Your task to perform on an android device: Search for "razer huntsman" on newegg, select the first entry, and add it to the cart. Image 0: 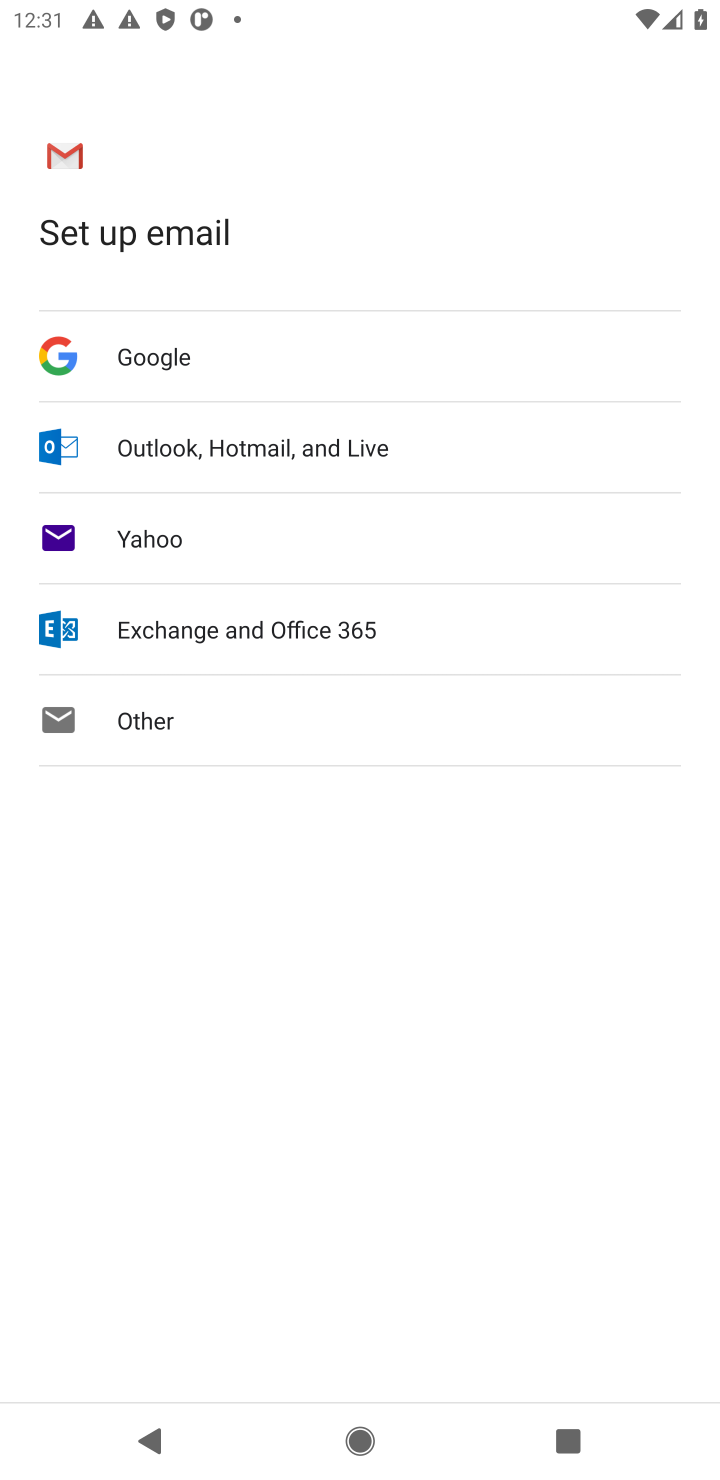
Step 0: press home button
Your task to perform on an android device: Search for "razer huntsman" on newegg, select the first entry, and add it to the cart. Image 1: 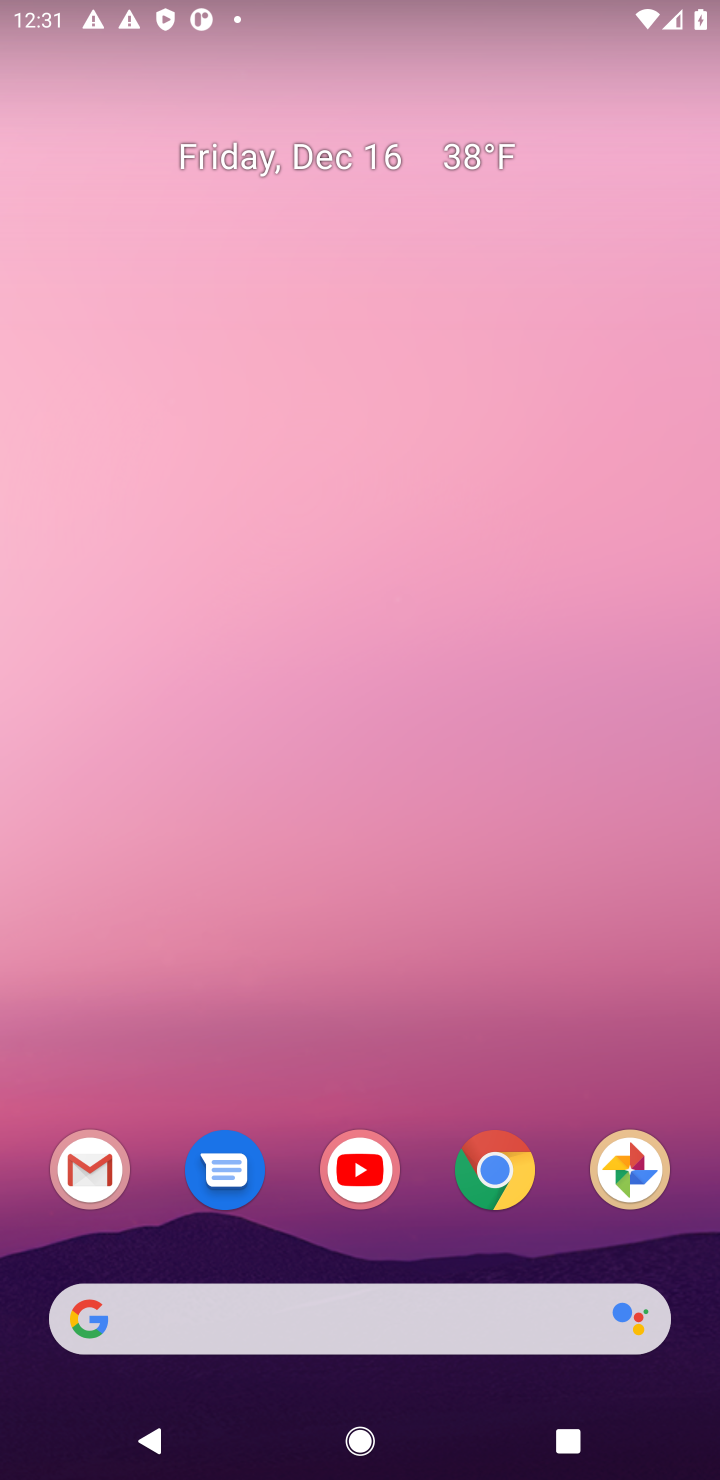
Step 1: click (499, 1185)
Your task to perform on an android device: Search for "razer huntsman" on newegg, select the first entry, and add it to the cart. Image 2: 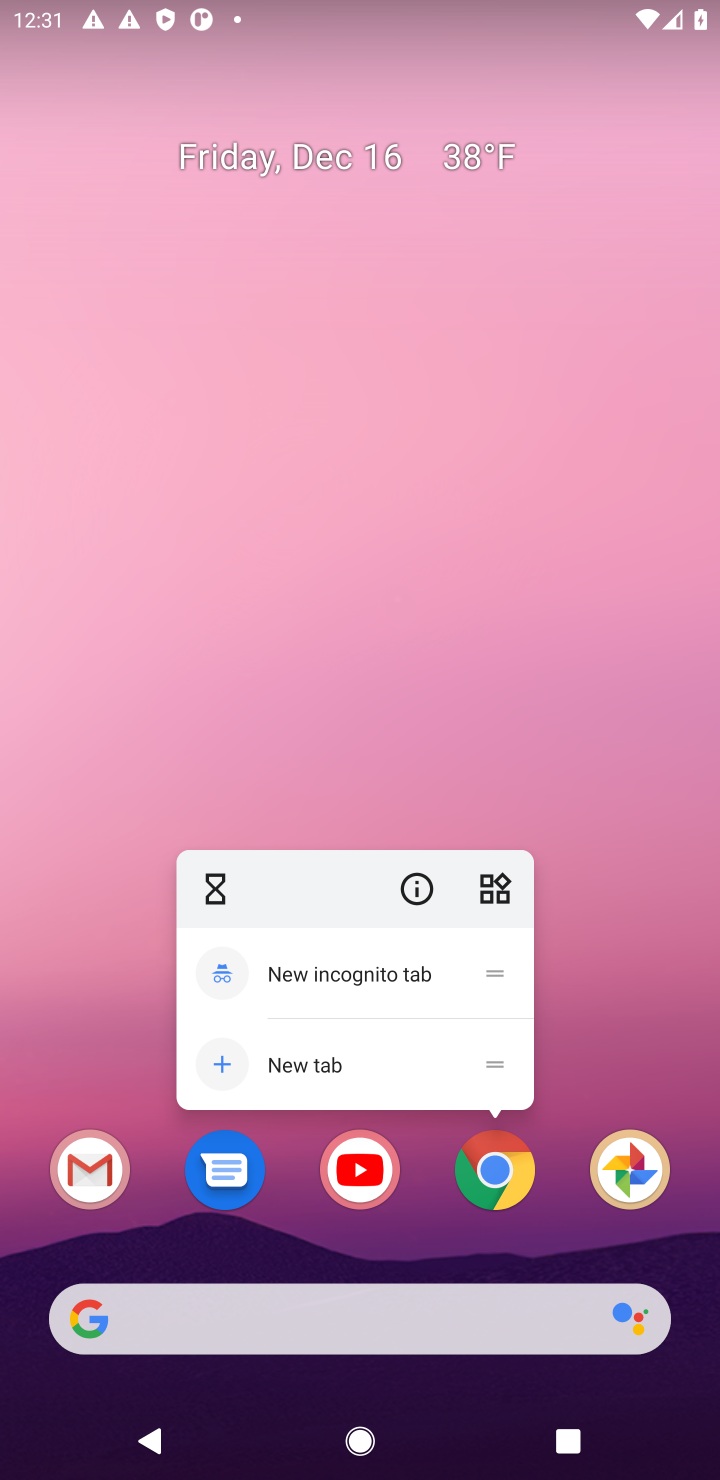
Step 2: click (499, 1185)
Your task to perform on an android device: Search for "razer huntsman" on newegg, select the first entry, and add it to the cart. Image 3: 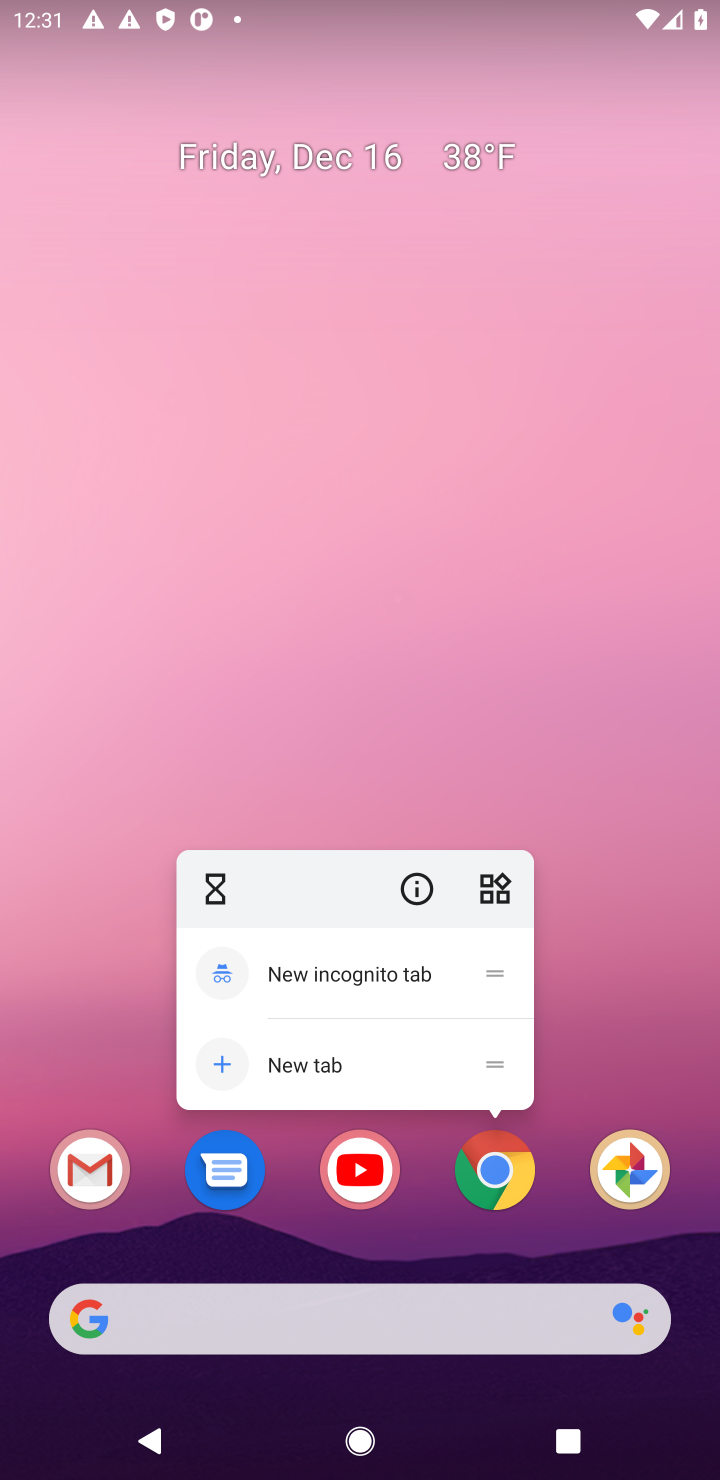
Step 3: click (497, 1180)
Your task to perform on an android device: Search for "razer huntsman" on newegg, select the first entry, and add it to the cart. Image 4: 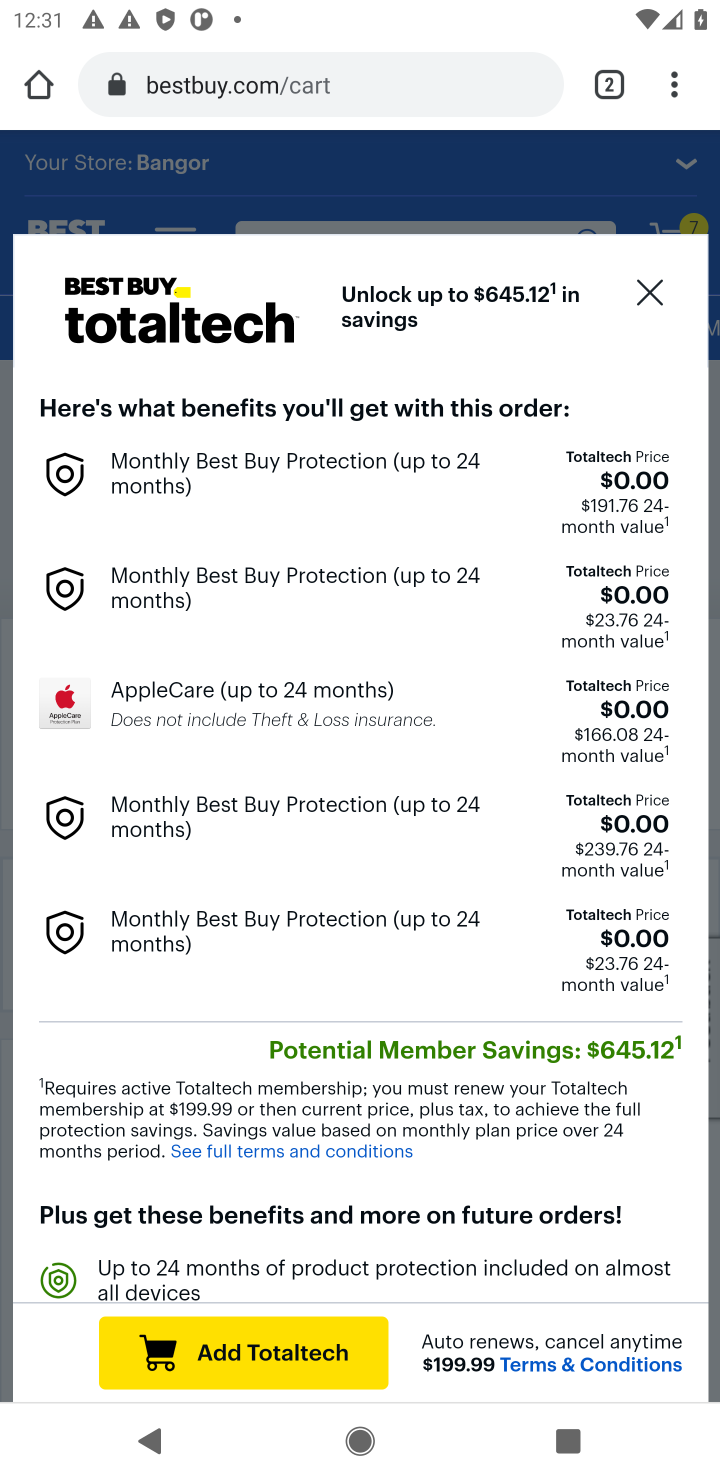
Step 4: click (270, 86)
Your task to perform on an android device: Search for "razer huntsman" on newegg, select the first entry, and add it to the cart. Image 5: 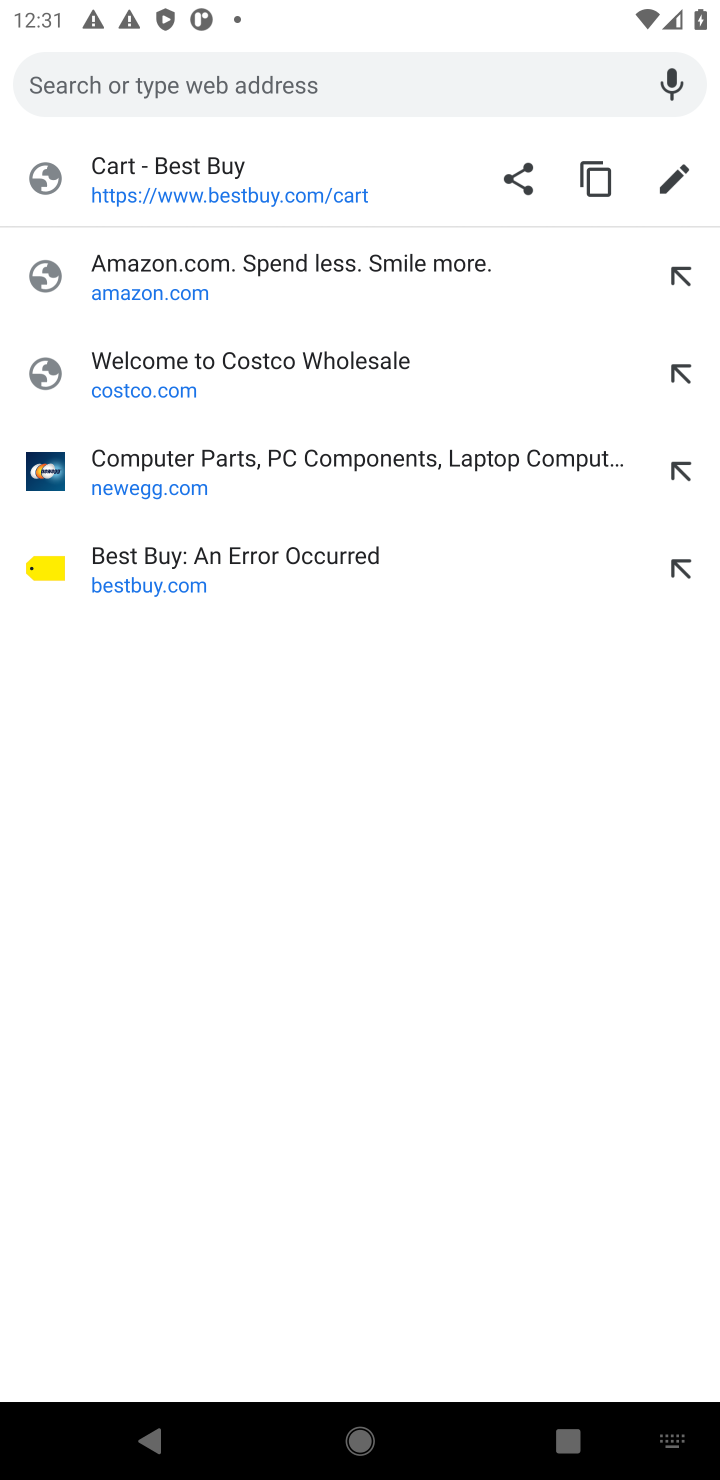
Step 5: click (134, 477)
Your task to perform on an android device: Search for "razer huntsman" on newegg, select the first entry, and add it to the cart. Image 6: 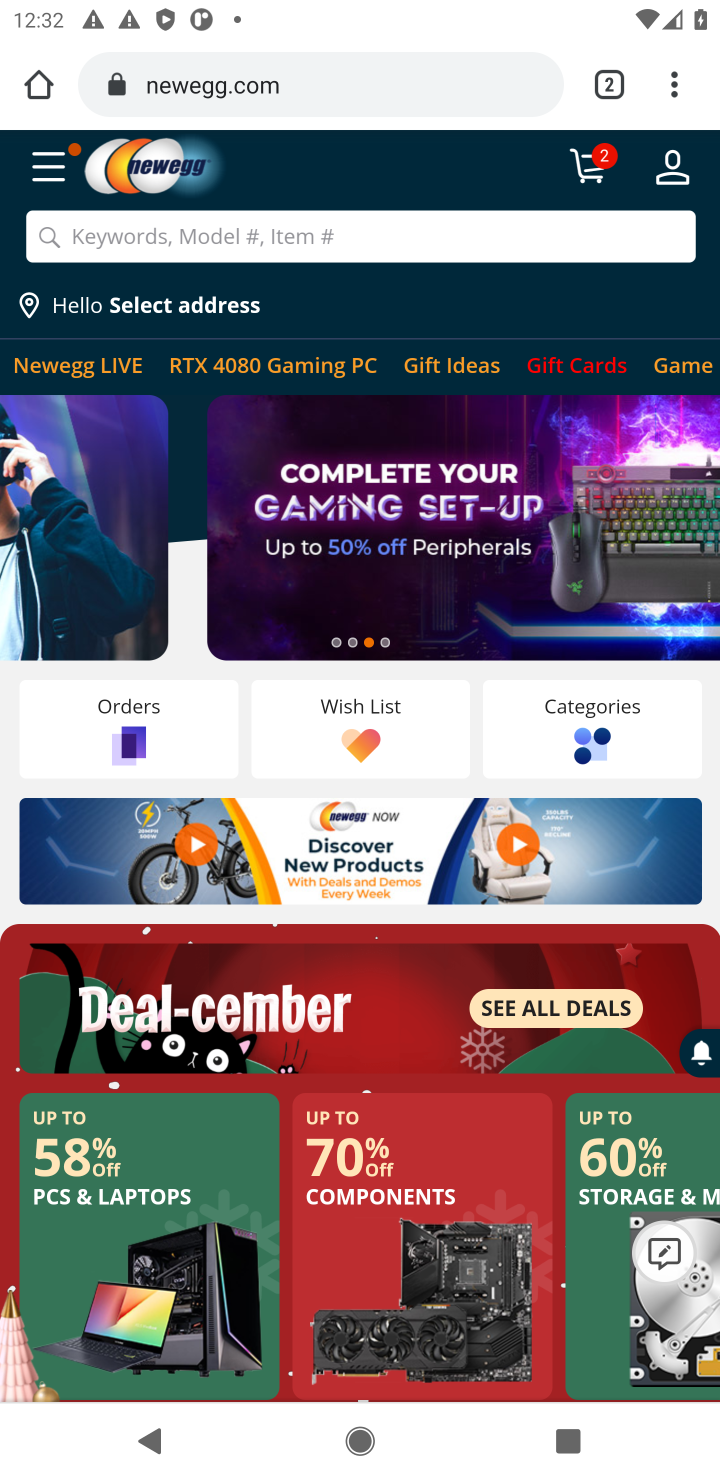
Step 6: click (200, 232)
Your task to perform on an android device: Search for "razer huntsman" on newegg, select the first entry, and add it to the cart. Image 7: 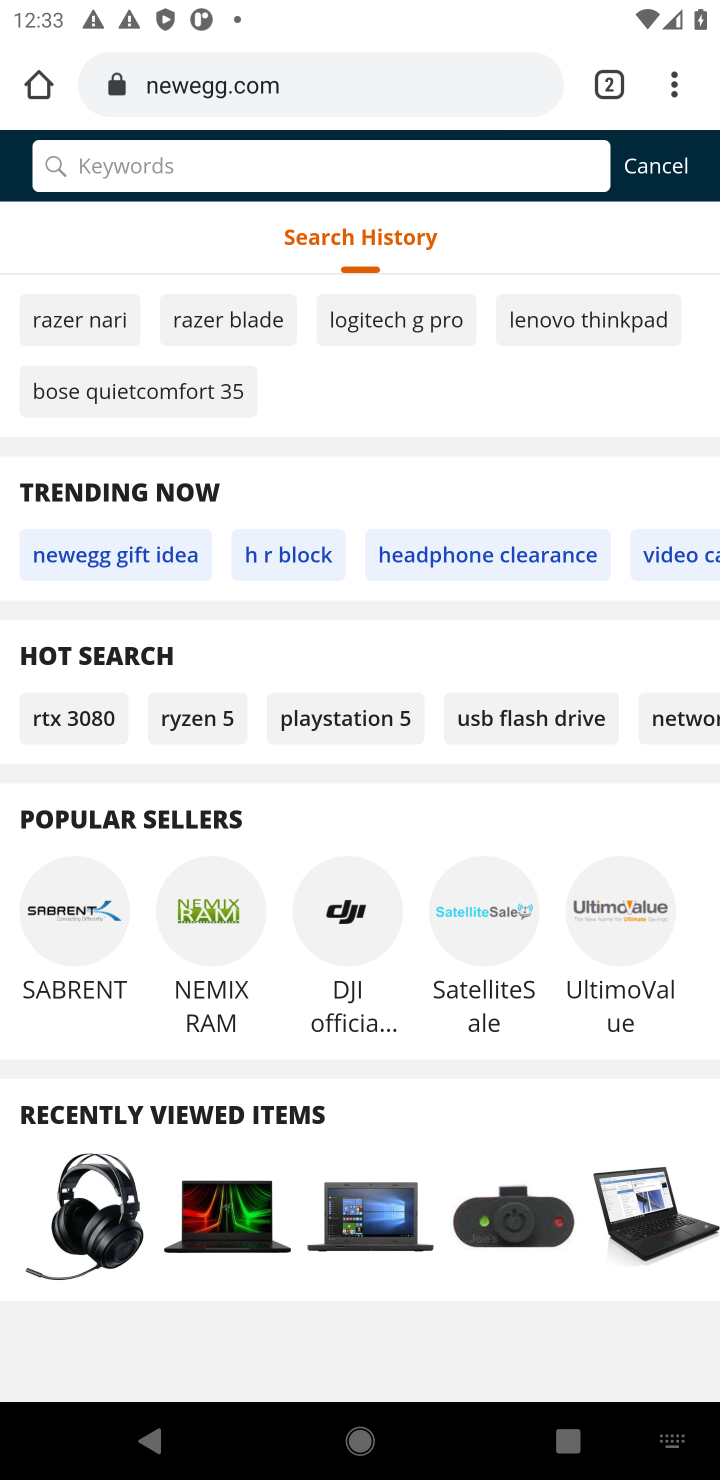
Step 7: click (268, 151)
Your task to perform on an android device: Search for "razer huntsman" on newegg, select the first entry, and add it to the cart. Image 8: 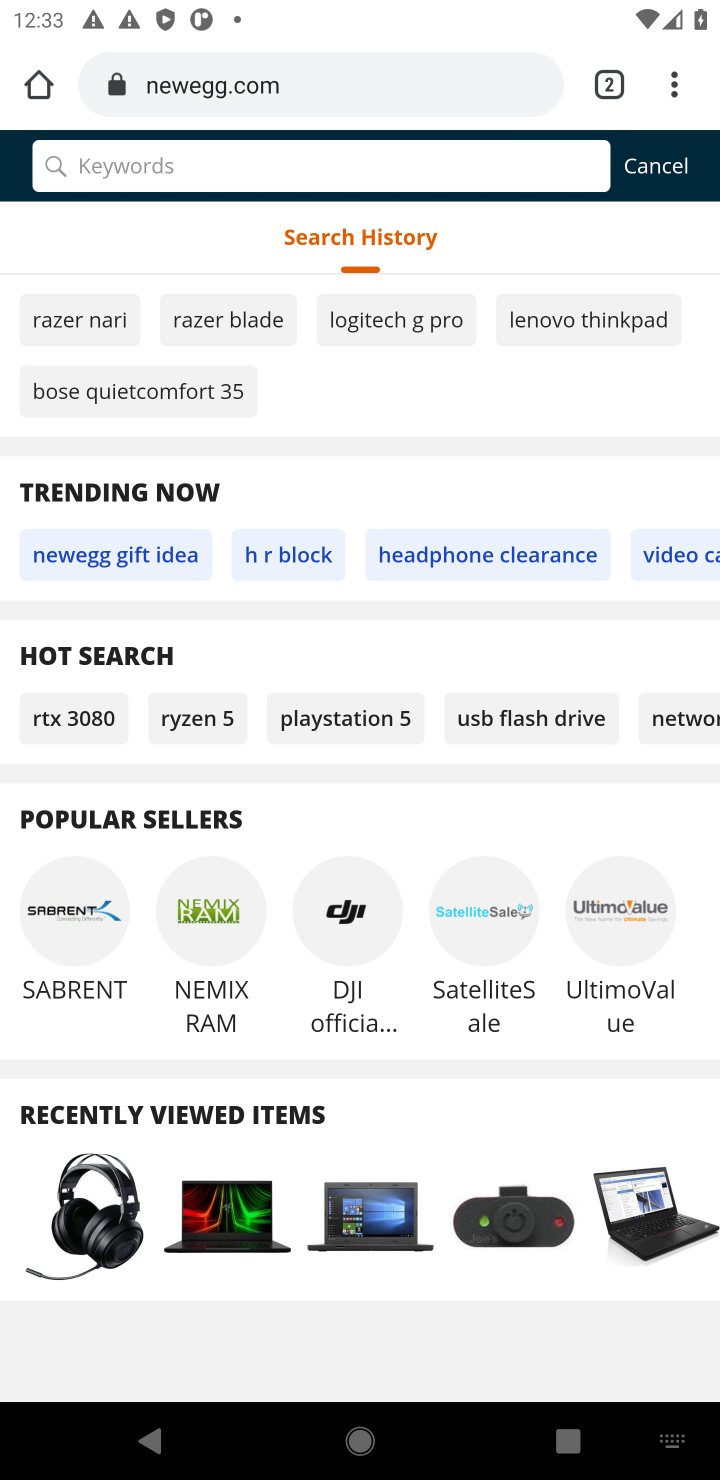
Step 8: type "razer huntsman"
Your task to perform on an android device: Search for "razer huntsman" on newegg, select the first entry, and add it to the cart. Image 9: 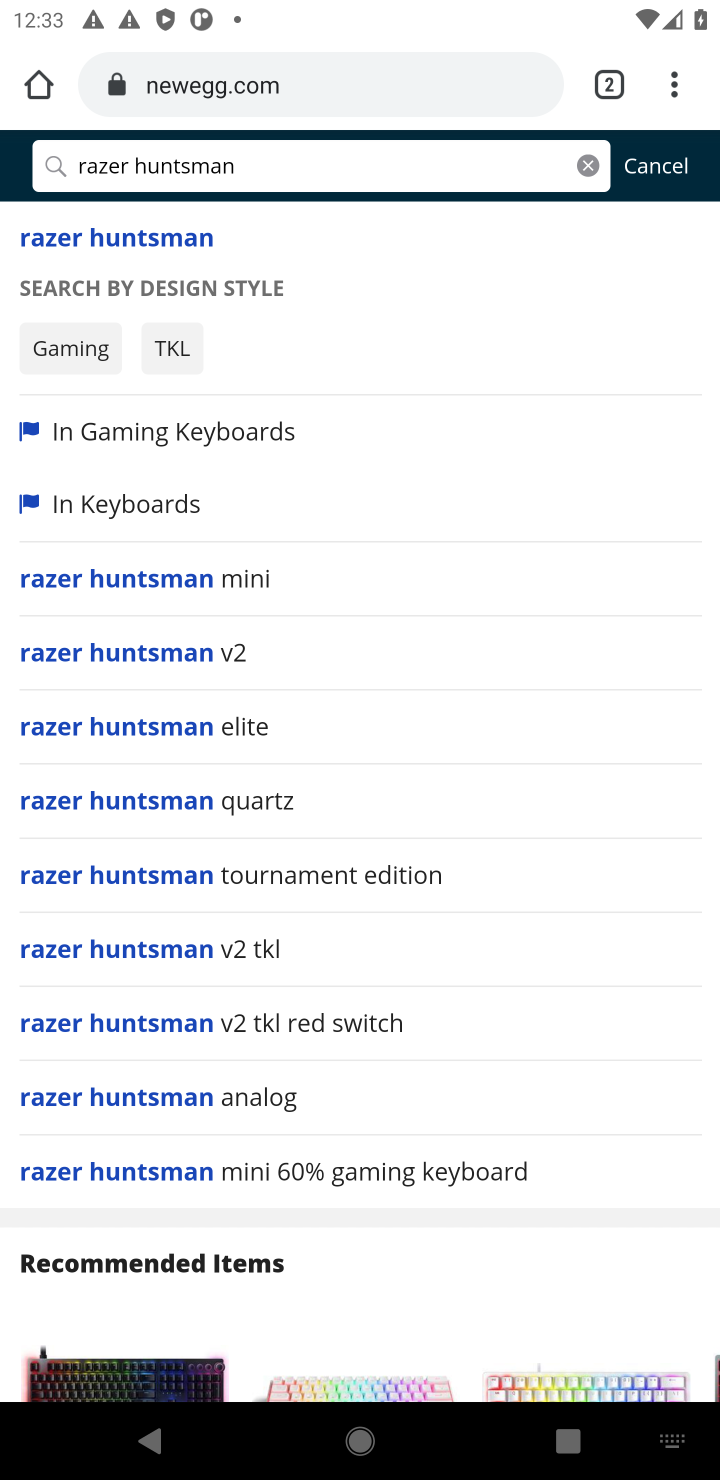
Step 9: click (208, 237)
Your task to perform on an android device: Search for "razer huntsman" on newegg, select the first entry, and add it to the cart. Image 10: 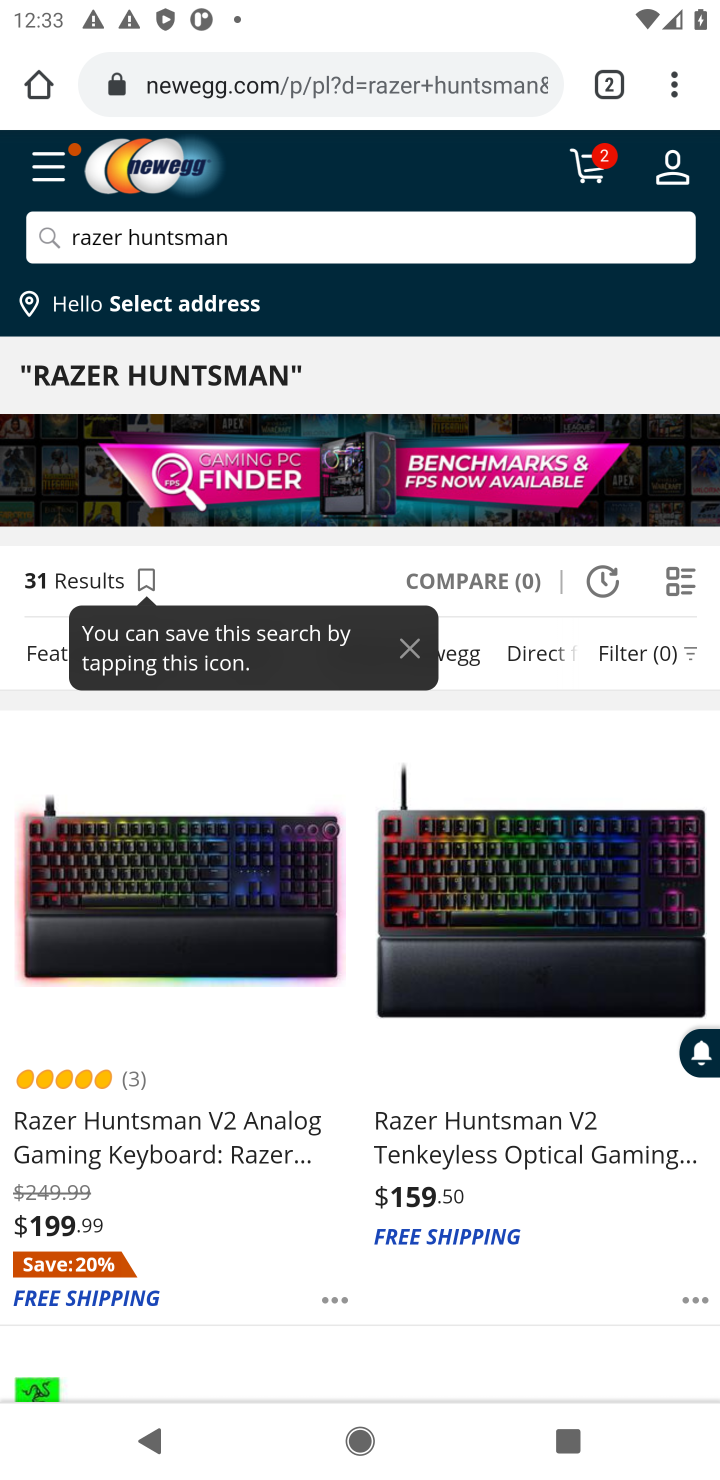
Step 10: click (111, 1149)
Your task to perform on an android device: Search for "razer huntsman" on newegg, select the first entry, and add it to the cart. Image 11: 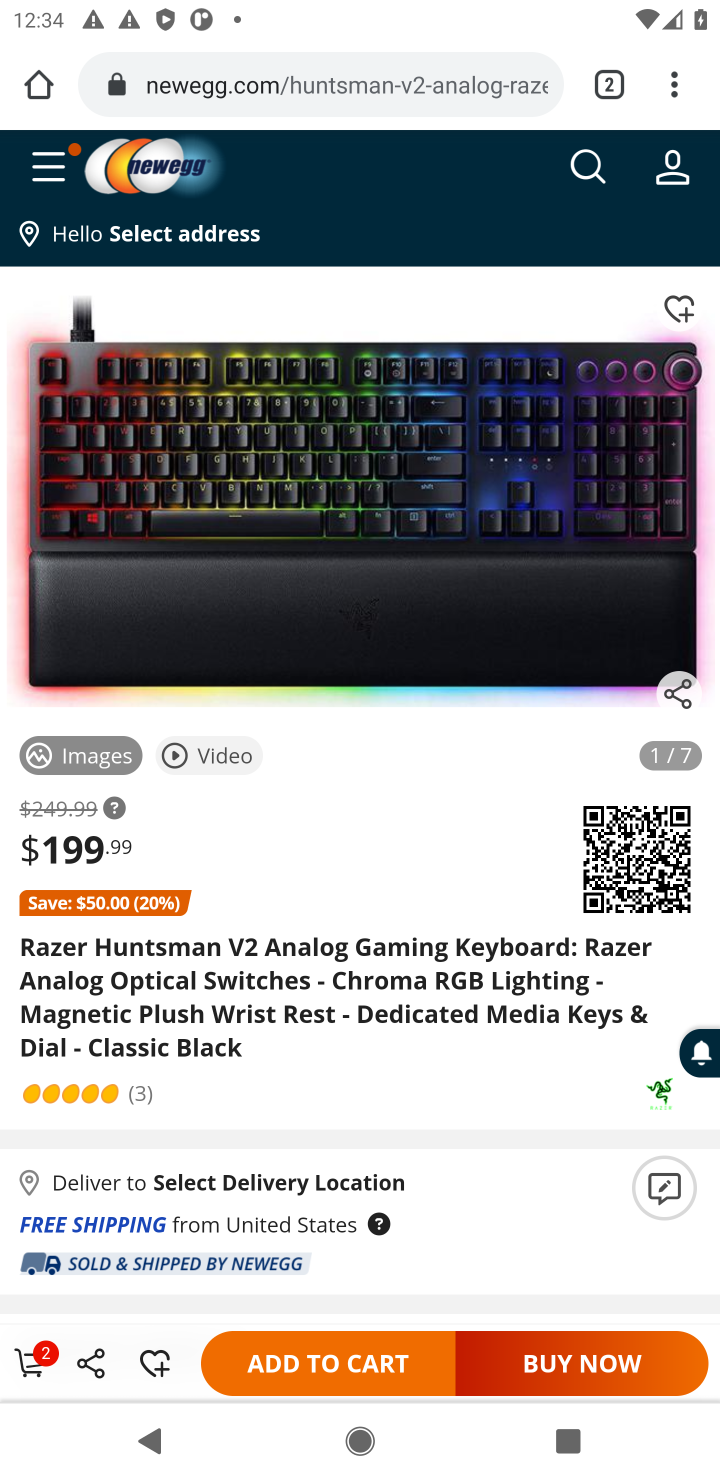
Step 11: click (325, 1363)
Your task to perform on an android device: Search for "razer huntsman" on newegg, select the first entry, and add it to the cart. Image 12: 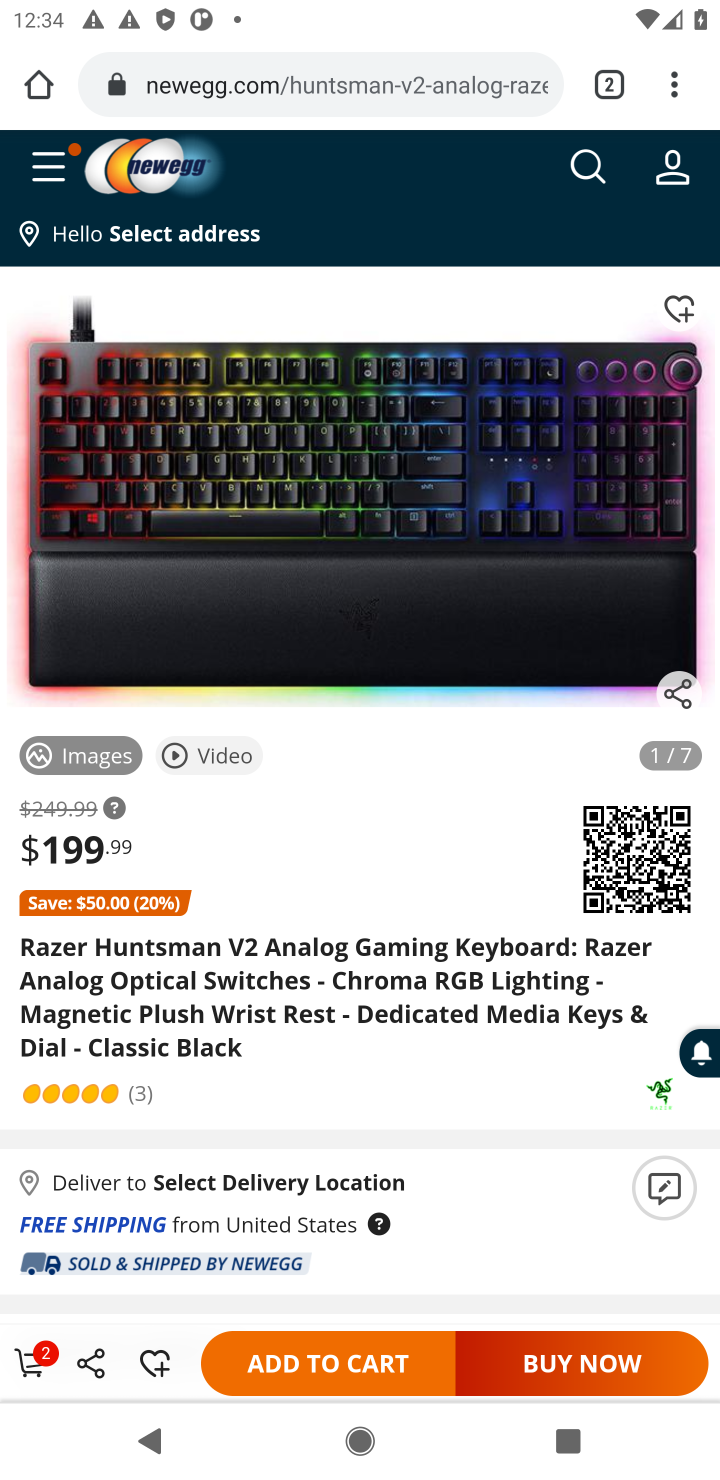
Step 12: click (329, 1370)
Your task to perform on an android device: Search for "razer huntsman" on newegg, select the first entry, and add it to the cart. Image 13: 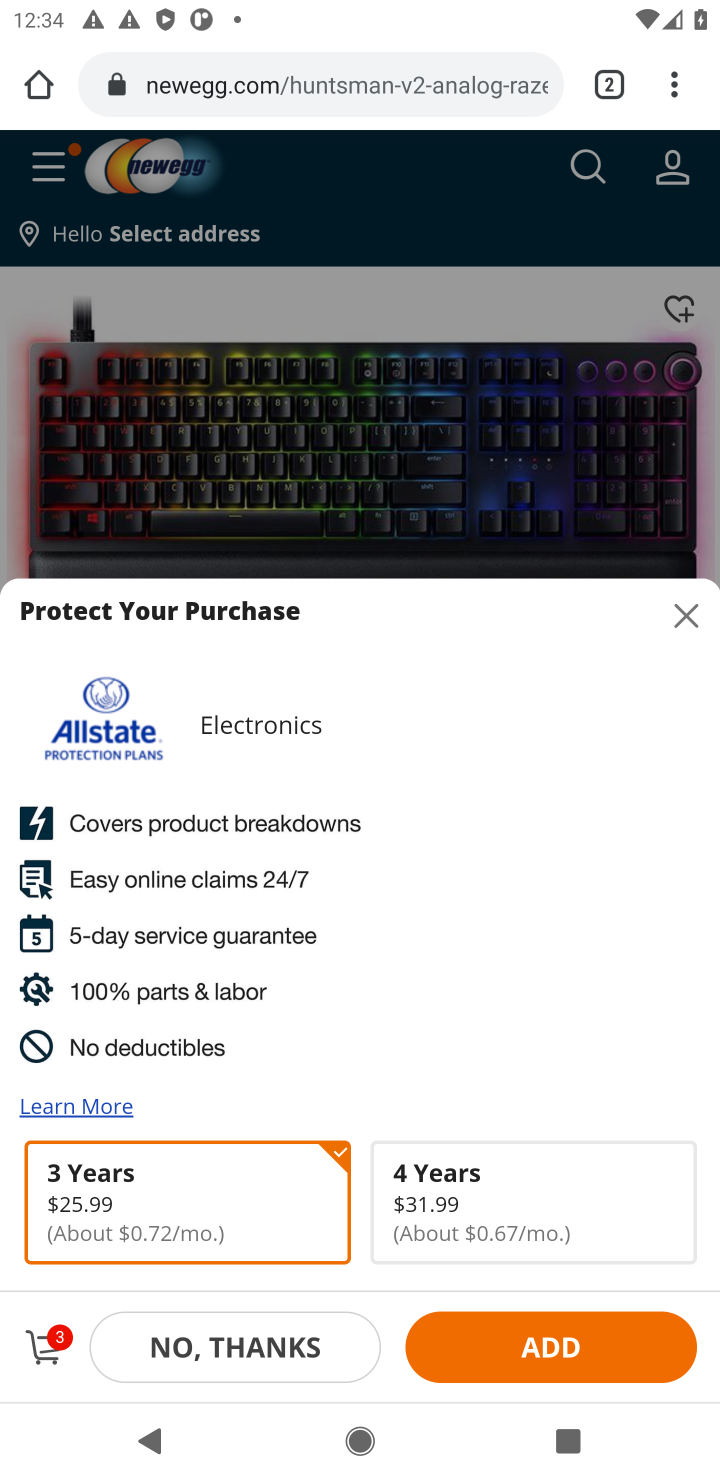
Step 13: task complete